Your task to perform on an android device: Show the shopping cart on walmart.com. Add "usb-a" to the cart on walmart.com, then select checkout. Image 0: 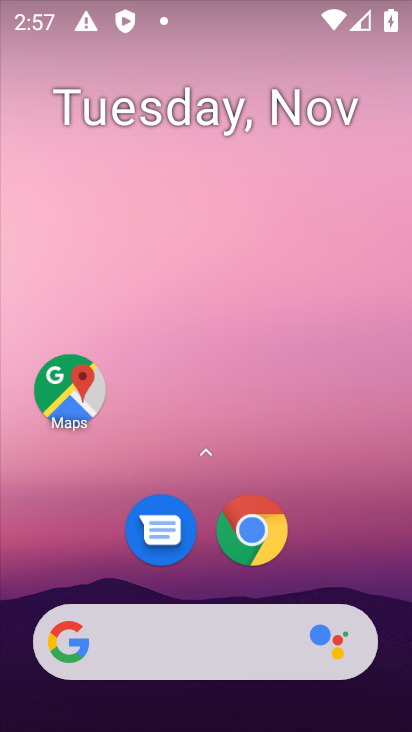
Step 0: drag from (274, 687) to (258, 133)
Your task to perform on an android device: Show the shopping cart on walmart.com. Add "usb-a" to the cart on walmart.com, then select checkout. Image 1: 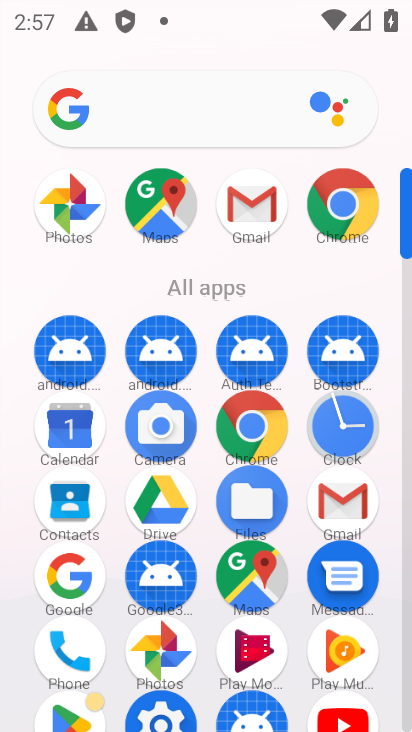
Step 1: click (244, 430)
Your task to perform on an android device: Show the shopping cart on walmart.com. Add "usb-a" to the cart on walmart.com, then select checkout. Image 2: 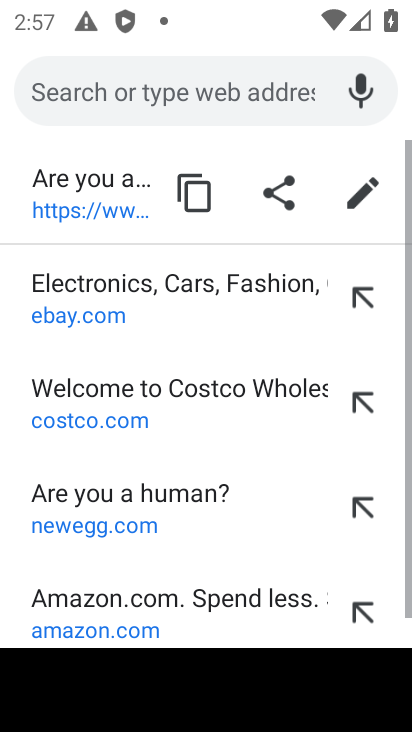
Step 2: click (179, 86)
Your task to perform on an android device: Show the shopping cart on walmart.com. Add "usb-a" to the cart on walmart.com, then select checkout. Image 3: 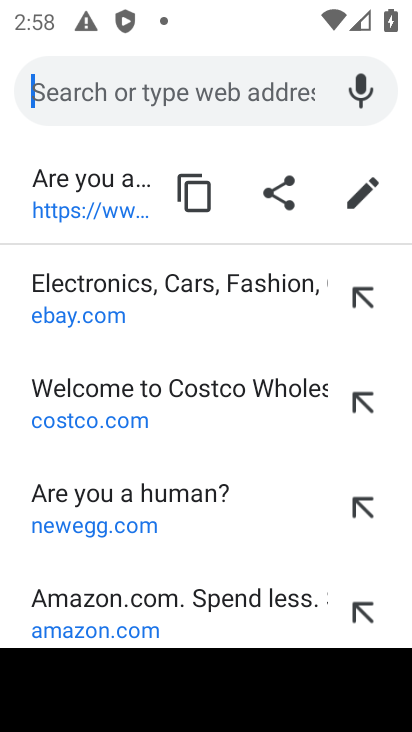
Step 3: type "walmart.com"
Your task to perform on an android device: Show the shopping cart on walmart.com. Add "usb-a" to the cart on walmart.com, then select checkout. Image 4: 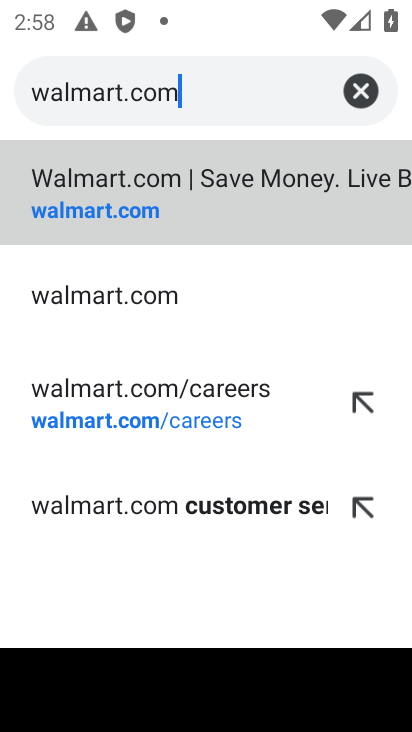
Step 4: click (96, 211)
Your task to perform on an android device: Show the shopping cart on walmart.com. Add "usb-a" to the cart on walmart.com, then select checkout. Image 5: 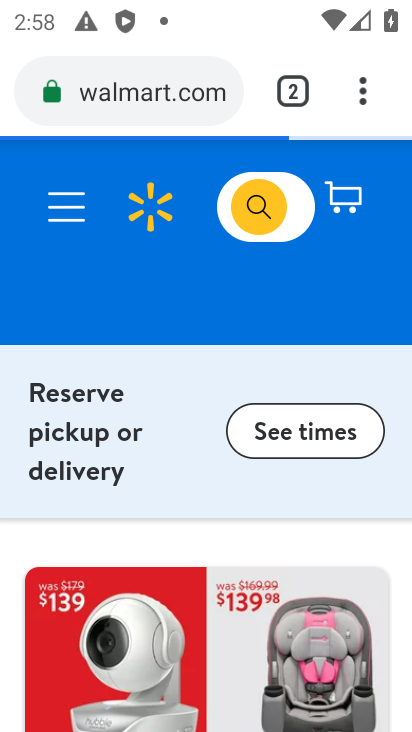
Step 5: click (241, 207)
Your task to perform on an android device: Show the shopping cart on walmart.com. Add "usb-a" to the cart on walmart.com, then select checkout. Image 6: 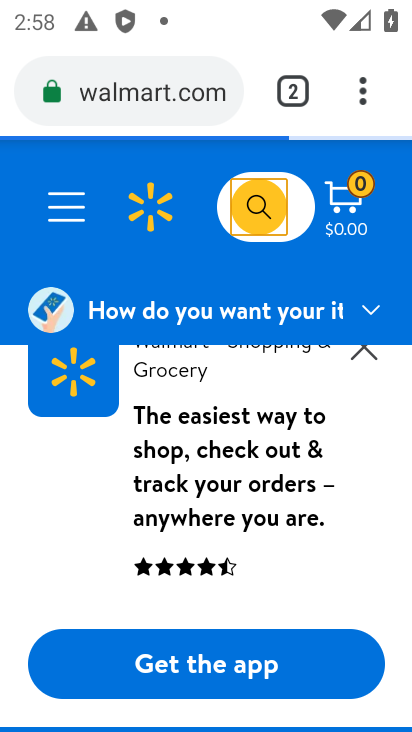
Step 6: click (279, 195)
Your task to perform on an android device: Show the shopping cart on walmart.com. Add "usb-a" to the cart on walmart.com, then select checkout. Image 7: 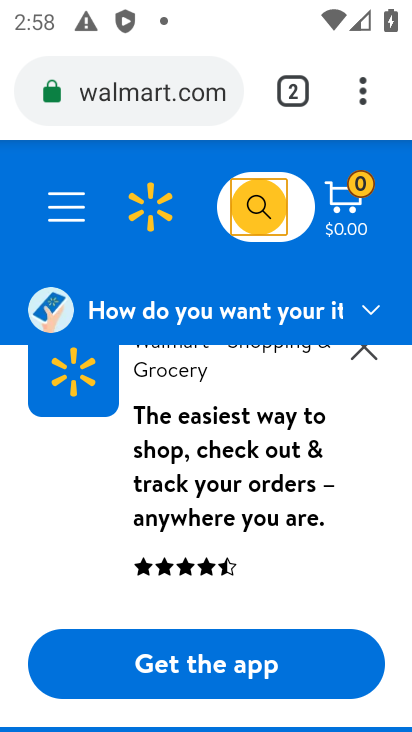
Step 7: click (255, 203)
Your task to perform on an android device: Show the shopping cart on walmart.com. Add "usb-a" to the cart on walmart.com, then select checkout. Image 8: 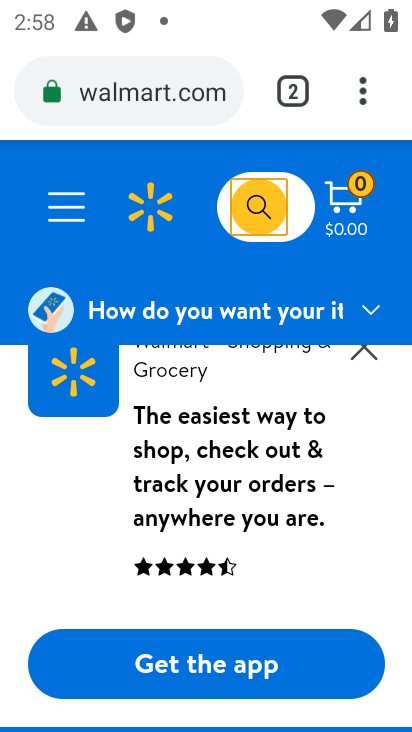
Step 8: click (297, 208)
Your task to perform on an android device: Show the shopping cart on walmart.com. Add "usb-a" to the cart on walmart.com, then select checkout. Image 9: 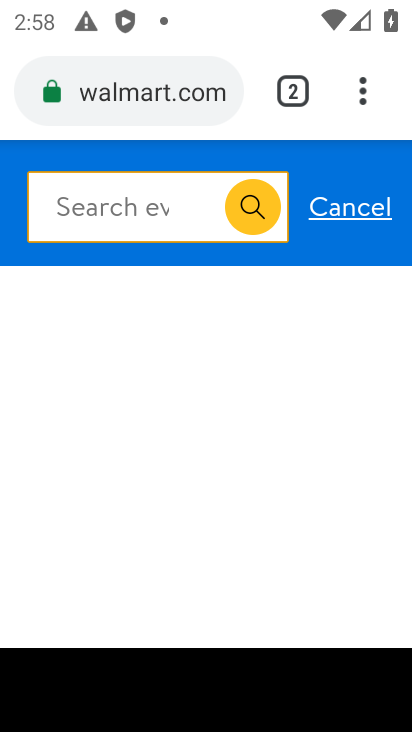
Step 9: click (255, 198)
Your task to perform on an android device: Show the shopping cart on walmart.com. Add "usb-a" to the cart on walmart.com, then select checkout. Image 10: 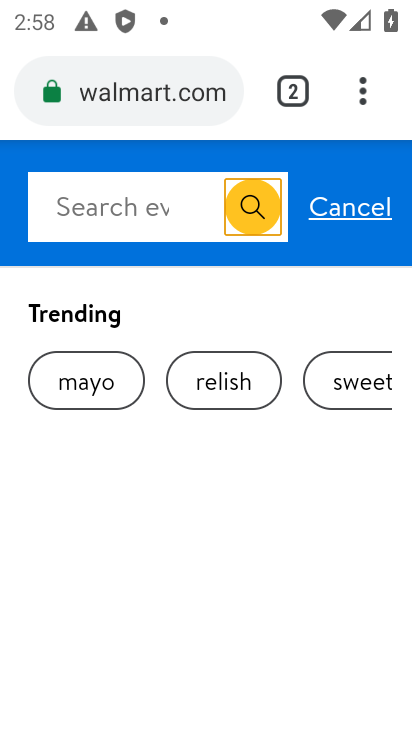
Step 10: click (115, 199)
Your task to perform on an android device: Show the shopping cart on walmart.com. Add "usb-a" to the cart on walmart.com, then select checkout. Image 11: 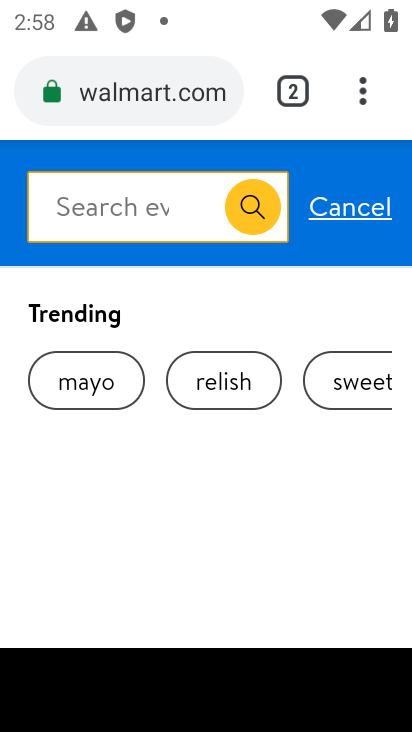
Step 11: type "usb-a"
Your task to perform on an android device: Show the shopping cart on walmart.com. Add "usb-a" to the cart on walmart.com, then select checkout. Image 12: 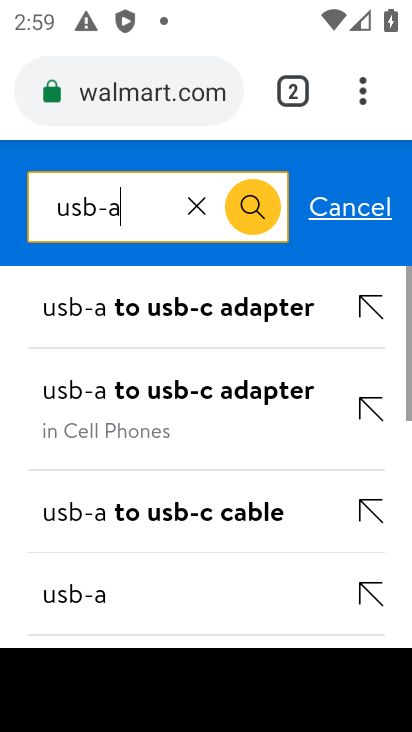
Step 12: click (248, 215)
Your task to perform on an android device: Show the shopping cart on walmart.com. Add "usb-a" to the cart on walmart.com, then select checkout. Image 13: 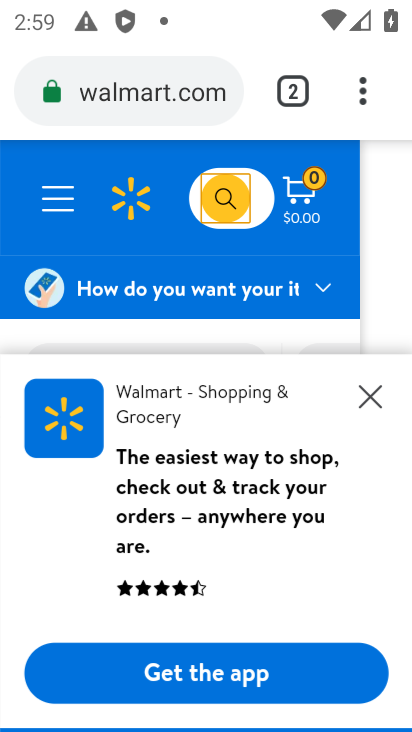
Step 13: click (222, 201)
Your task to perform on an android device: Show the shopping cart on walmart.com. Add "usb-a" to the cart on walmart.com, then select checkout. Image 14: 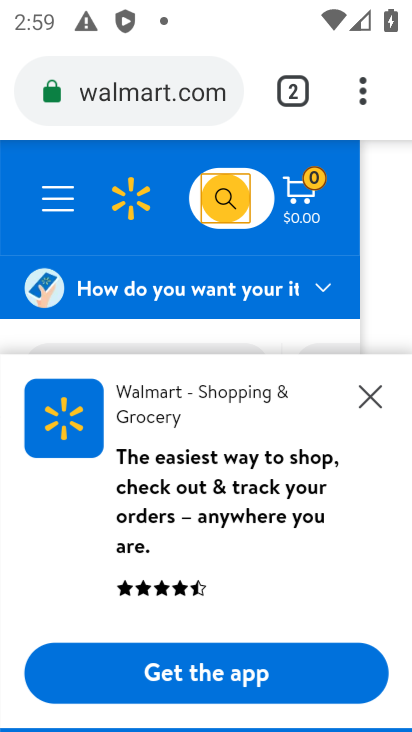
Step 14: click (222, 201)
Your task to perform on an android device: Show the shopping cart on walmart.com. Add "usb-a" to the cart on walmart.com, then select checkout. Image 15: 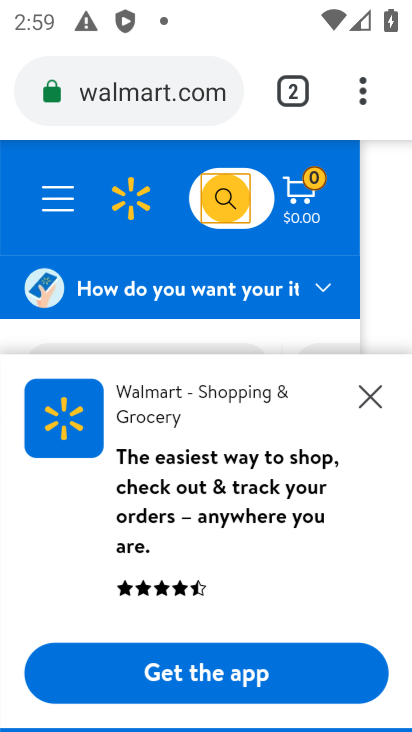
Step 15: drag from (235, 568) to (219, 218)
Your task to perform on an android device: Show the shopping cart on walmart.com. Add "usb-a" to the cart on walmart.com, then select checkout. Image 16: 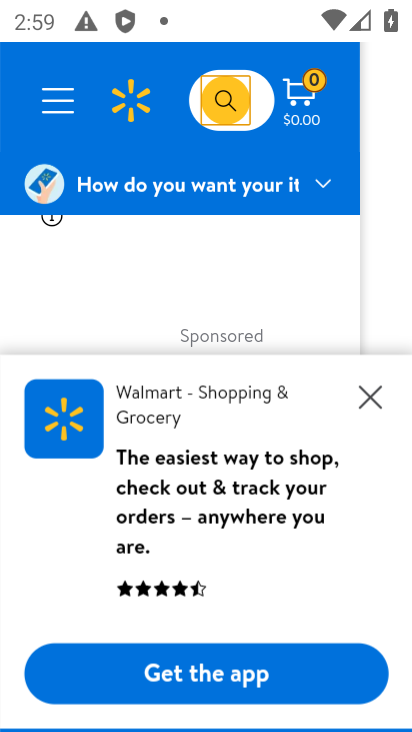
Step 16: click (370, 397)
Your task to perform on an android device: Show the shopping cart on walmart.com. Add "usb-a" to the cart on walmart.com, then select checkout. Image 17: 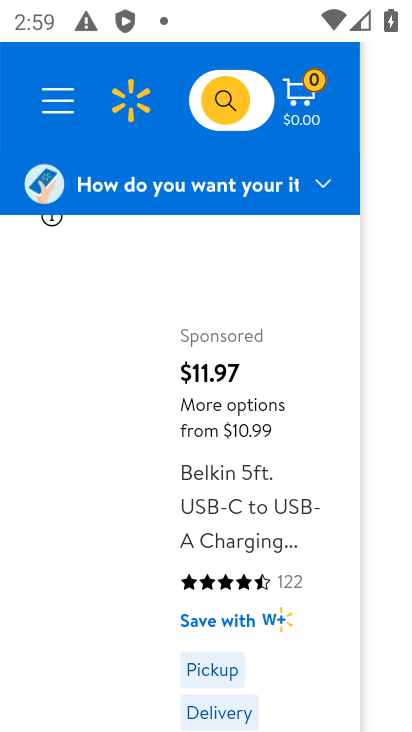
Step 17: drag from (174, 323) to (144, 558)
Your task to perform on an android device: Show the shopping cart on walmart.com. Add "usb-a" to the cart on walmart.com, then select checkout. Image 18: 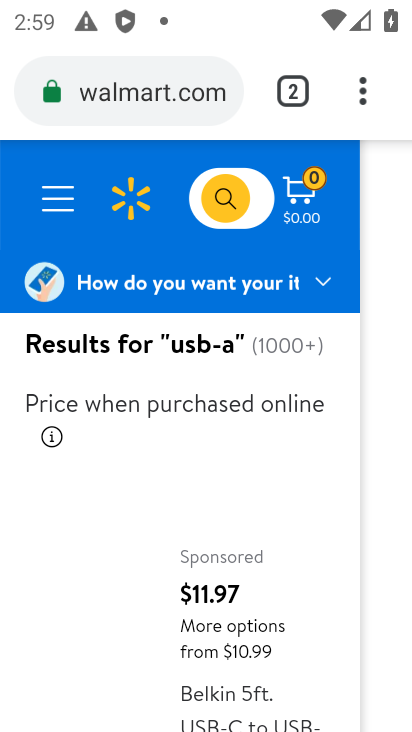
Step 18: drag from (165, 474) to (160, 593)
Your task to perform on an android device: Show the shopping cart on walmart.com. Add "usb-a" to the cart on walmart.com, then select checkout. Image 19: 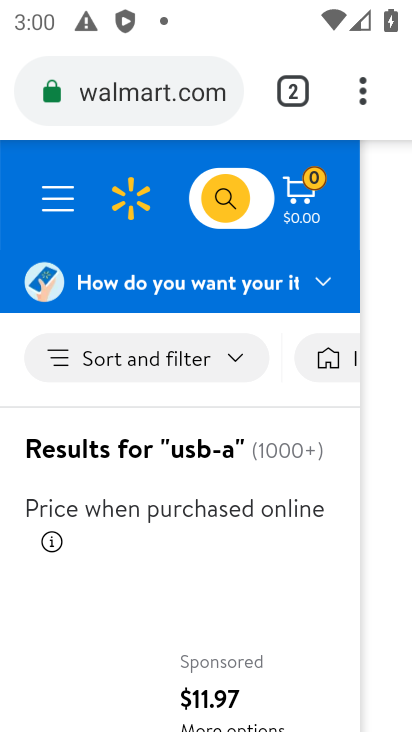
Step 19: drag from (160, 593) to (178, 343)
Your task to perform on an android device: Show the shopping cart on walmart.com. Add "usb-a" to the cart on walmart.com, then select checkout. Image 20: 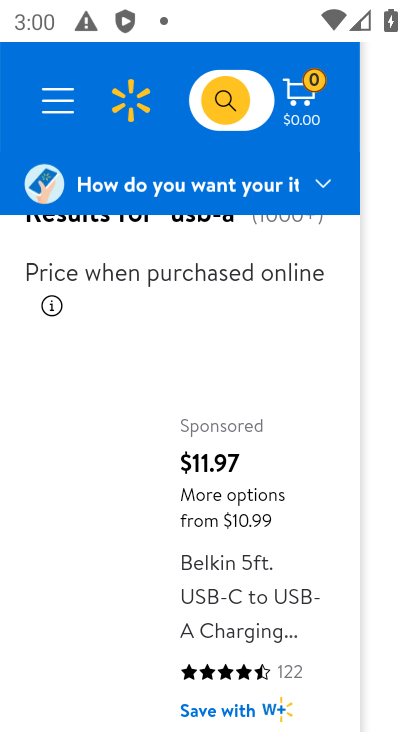
Step 20: drag from (137, 541) to (166, 276)
Your task to perform on an android device: Show the shopping cart on walmart.com. Add "usb-a" to the cart on walmart.com, then select checkout. Image 21: 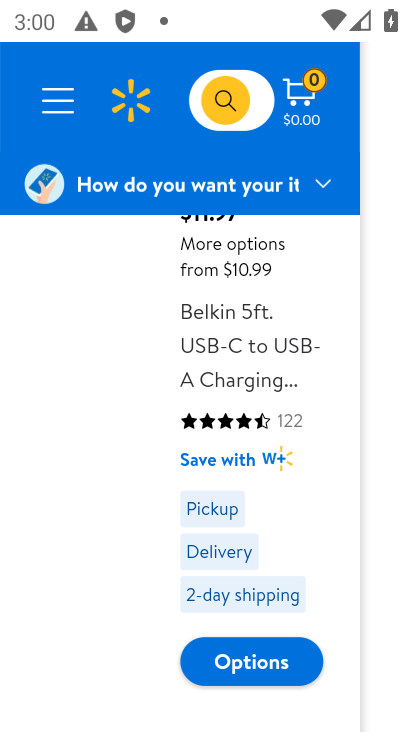
Step 21: drag from (90, 513) to (146, 300)
Your task to perform on an android device: Show the shopping cart on walmart.com. Add "usb-a" to the cart on walmart.com, then select checkout. Image 22: 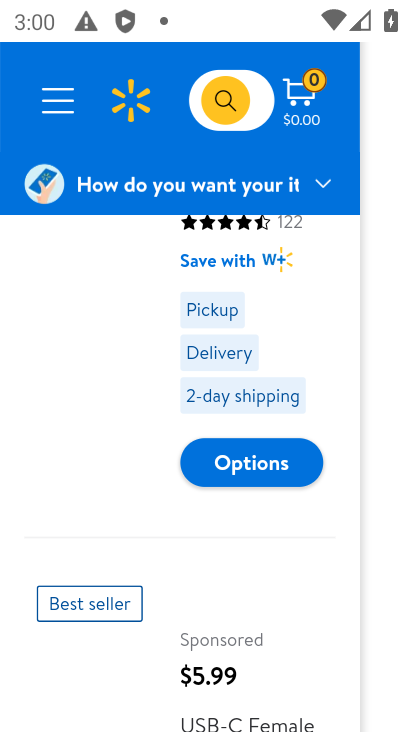
Step 22: drag from (129, 365) to (103, 558)
Your task to perform on an android device: Show the shopping cart on walmart.com. Add "usb-a" to the cart on walmart.com, then select checkout. Image 23: 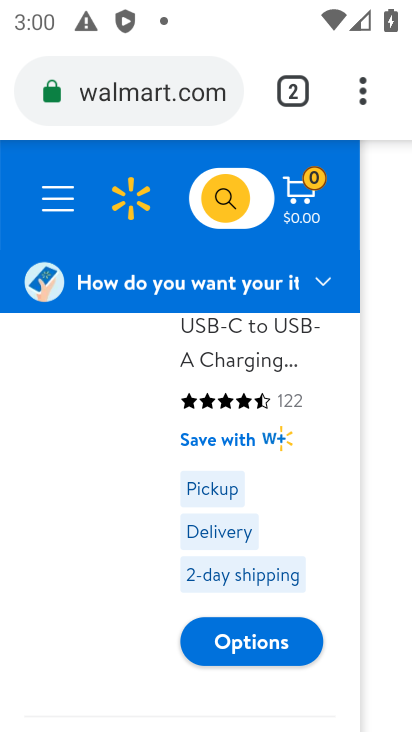
Step 23: drag from (134, 443) to (131, 594)
Your task to perform on an android device: Show the shopping cart on walmart.com. Add "usb-a" to the cart on walmart.com, then select checkout. Image 24: 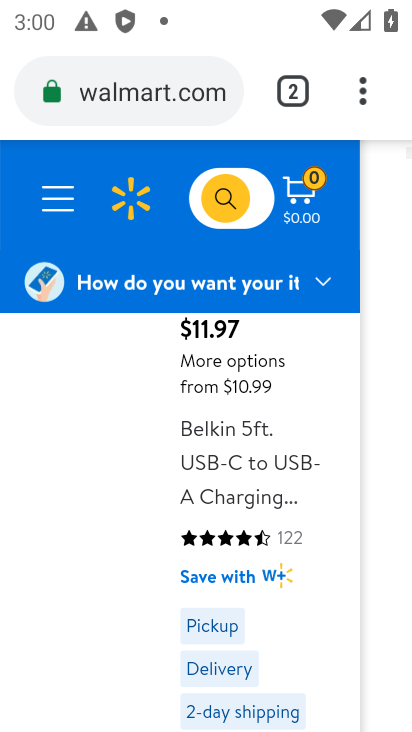
Step 24: click (130, 450)
Your task to perform on an android device: Show the shopping cart on walmart.com. Add "usb-a" to the cart on walmart.com, then select checkout. Image 25: 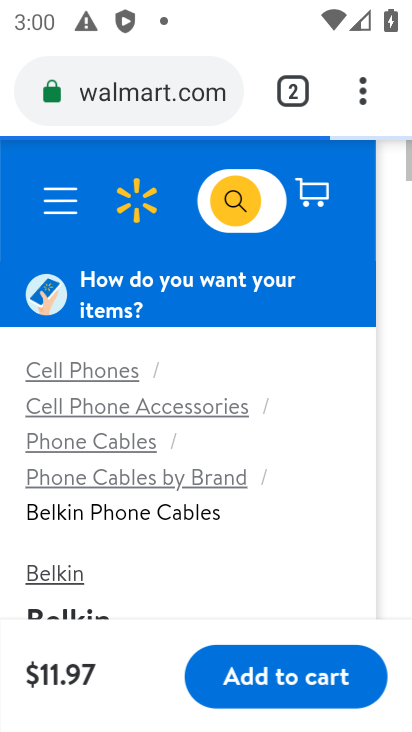
Step 25: click (288, 668)
Your task to perform on an android device: Show the shopping cart on walmart.com. Add "usb-a" to the cart on walmart.com, then select checkout. Image 26: 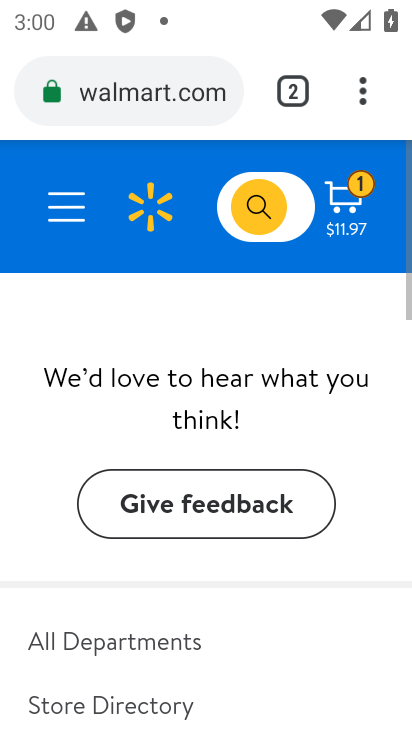
Step 26: task complete